Your task to perform on an android device: Clear the shopping cart on target.com. Search for panasonic triple a on target.com, select the first entry, and add it to the cart. Image 0: 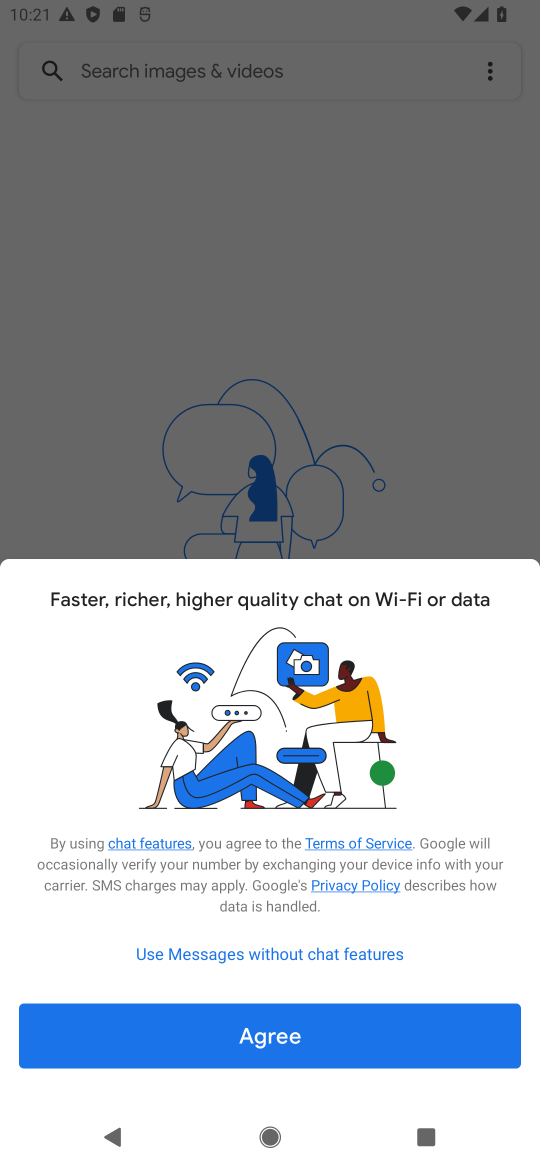
Step 0: press home button
Your task to perform on an android device: Clear the shopping cart on target.com. Search for panasonic triple a on target.com, select the first entry, and add it to the cart. Image 1: 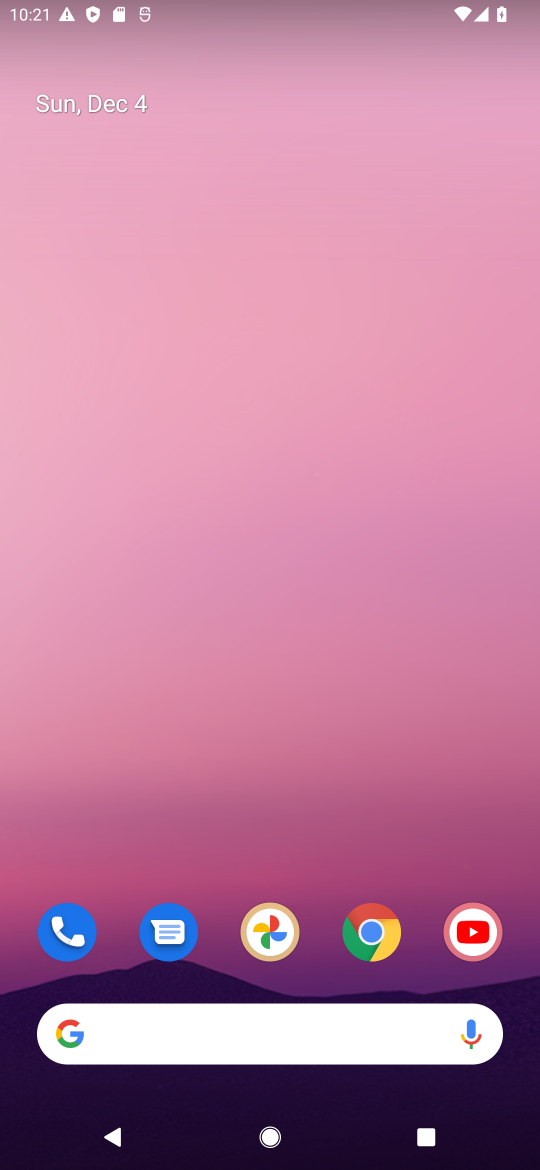
Step 1: click (361, 936)
Your task to perform on an android device: Clear the shopping cart on target.com. Search for panasonic triple a on target.com, select the first entry, and add it to the cart. Image 2: 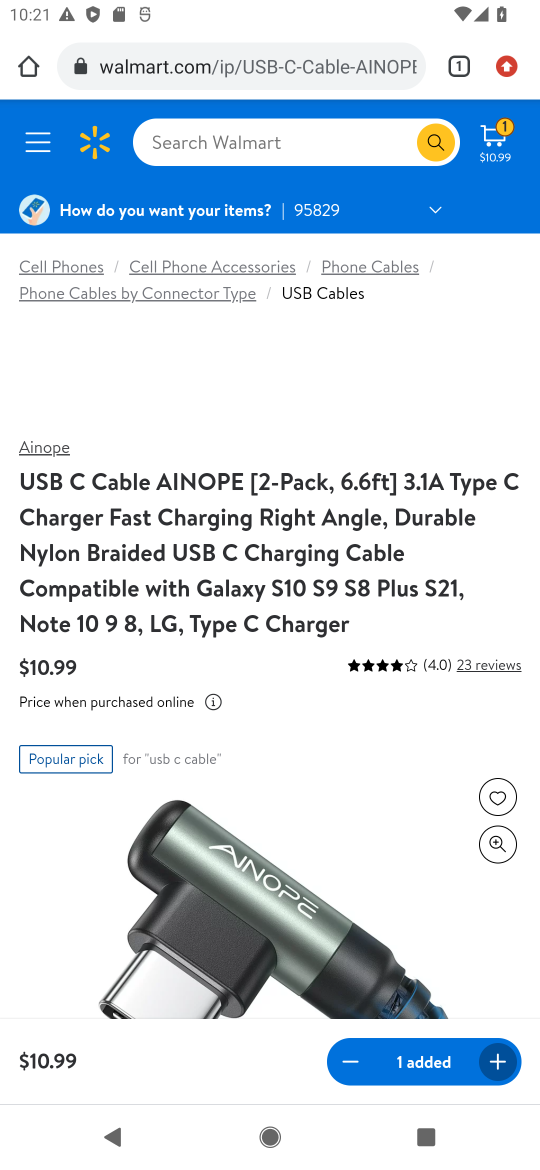
Step 2: click (239, 57)
Your task to perform on an android device: Clear the shopping cart on target.com. Search for panasonic triple a on target.com, select the first entry, and add it to the cart. Image 3: 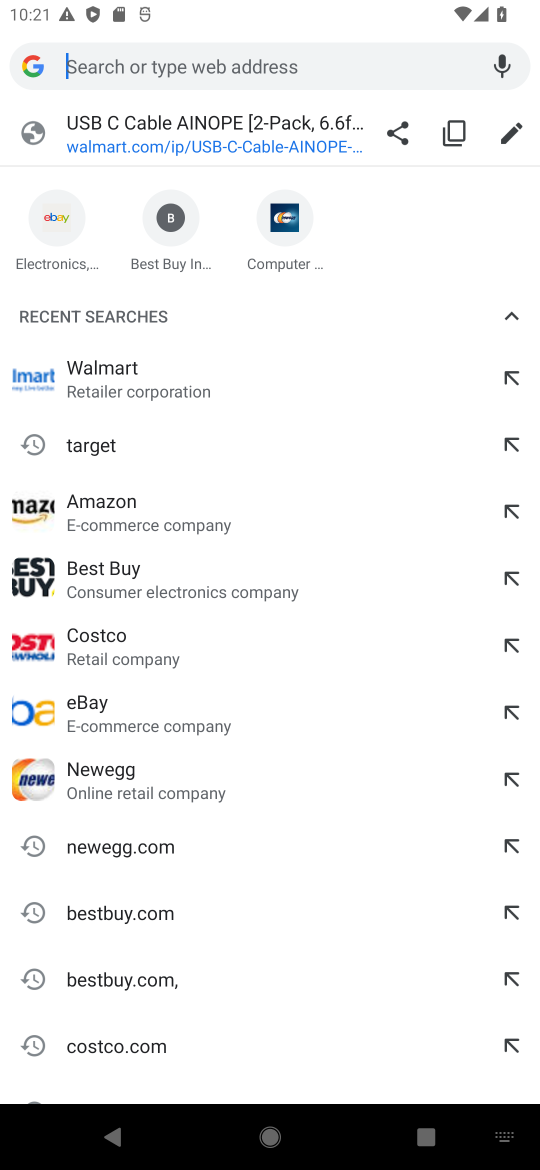
Step 3: click (100, 437)
Your task to perform on an android device: Clear the shopping cart on target.com. Search for panasonic triple a on target.com, select the first entry, and add it to the cart. Image 4: 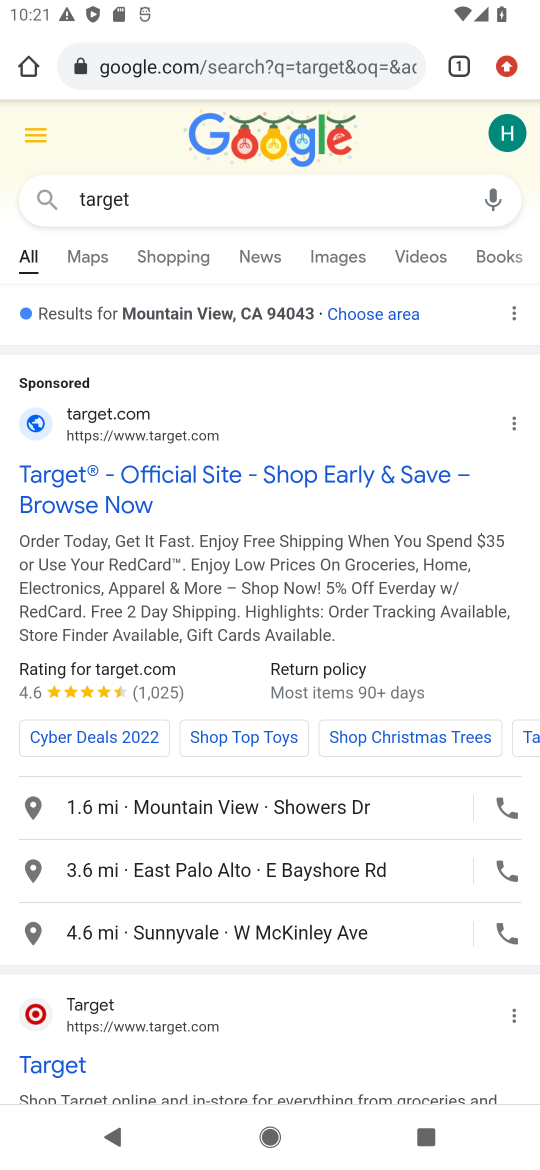
Step 4: click (224, 474)
Your task to perform on an android device: Clear the shopping cart on target.com. Search for panasonic triple a on target.com, select the first entry, and add it to the cart. Image 5: 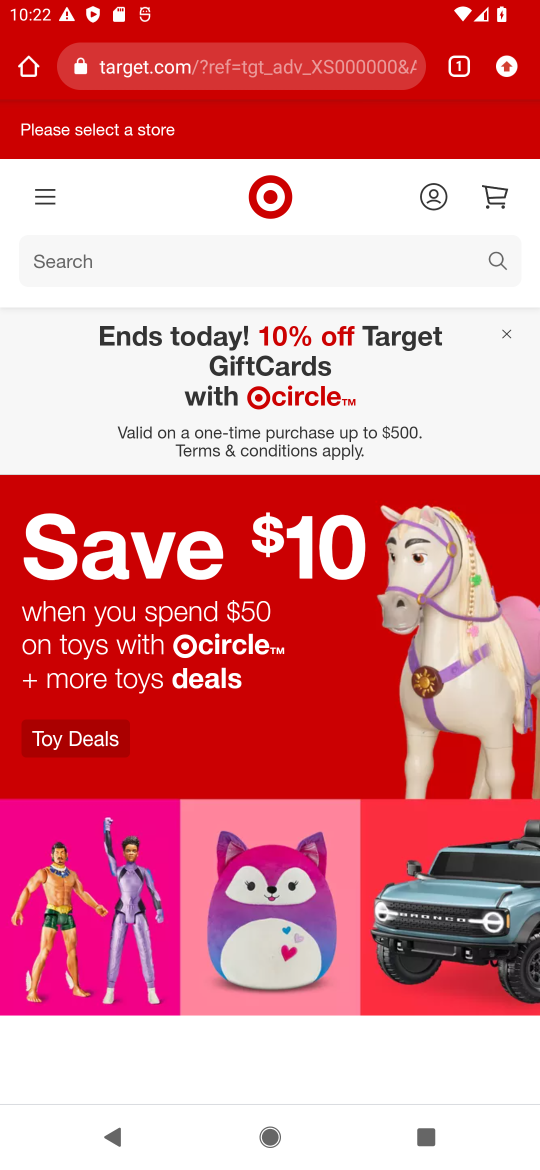
Step 5: click (282, 272)
Your task to perform on an android device: Clear the shopping cart on target.com. Search for panasonic triple a on target.com, select the first entry, and add it to the cart. Image 6: 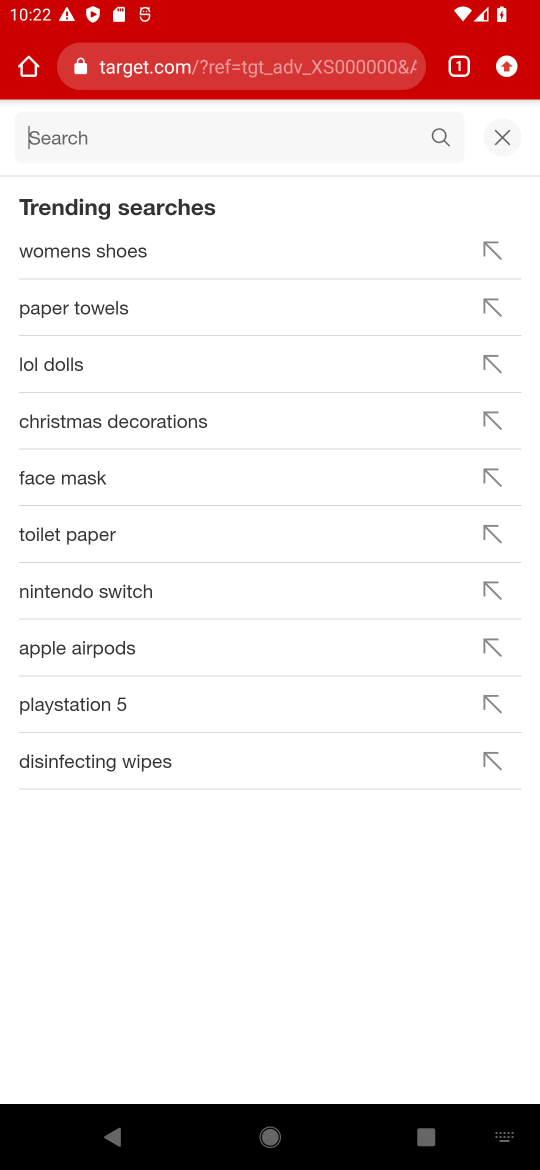
Step 6: type "panasonic triple a"
Your task to perform on an android device: Clear the shopping cart on target.com. Search for panasonic triple a on target.com, select the first entry, and add it to the cart. Image 7: 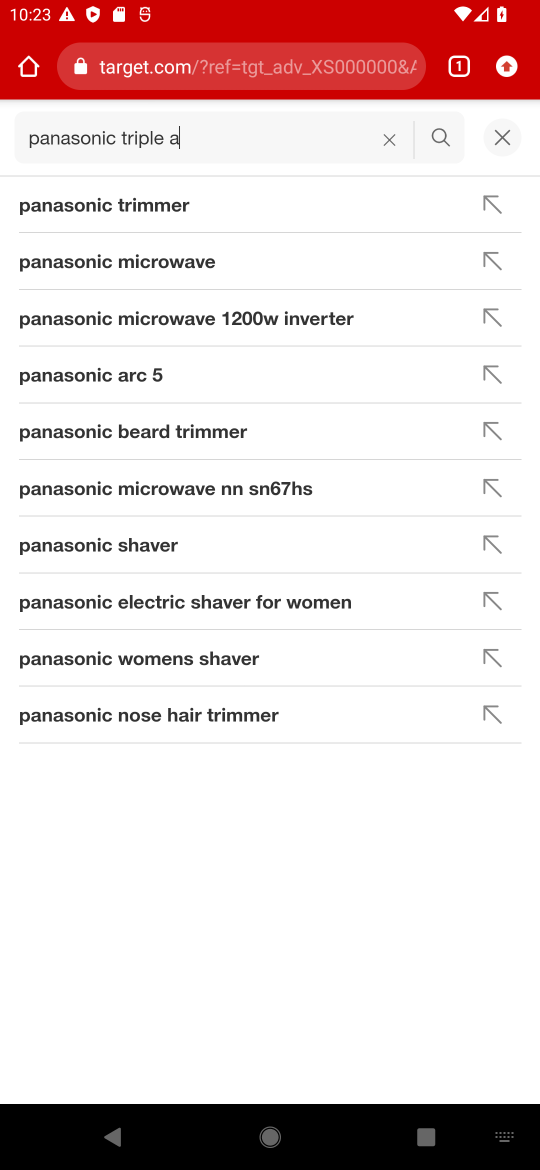
Step 7: click (103, 204)
Your task to perform on an android device: Clear the shopping cart on target.com. Search for panasonic triple a on target.com, select the first entry, and add it to the cart. Image 8: 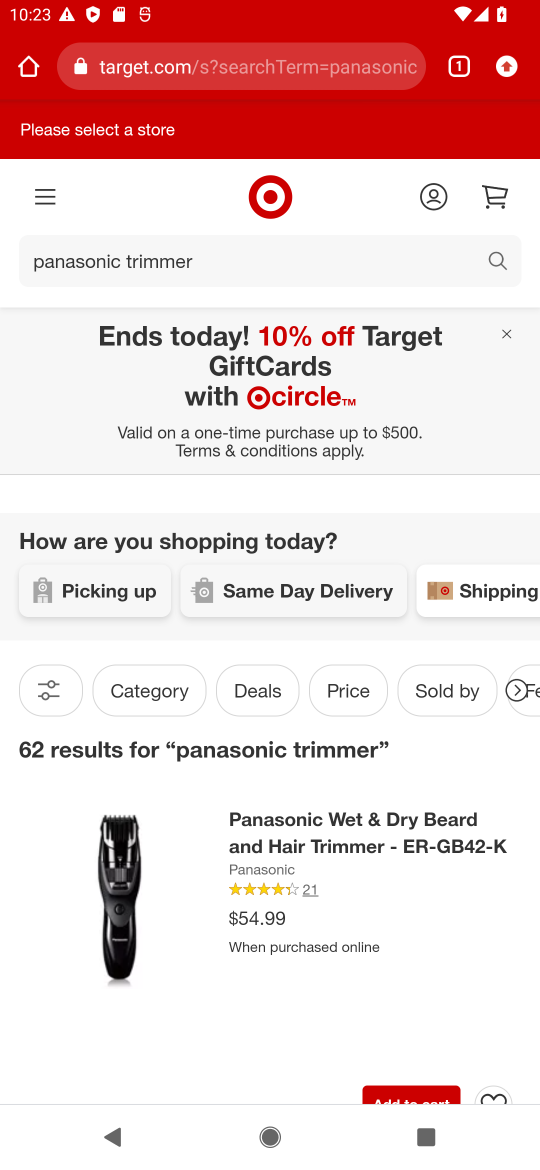
Step 8: click (139, 877)
Your task to perform on an android device: Clear the shopping cart on target.com. Search for panasonic triple a on target.com, select the first entry, and add it to the cart. Image 9: 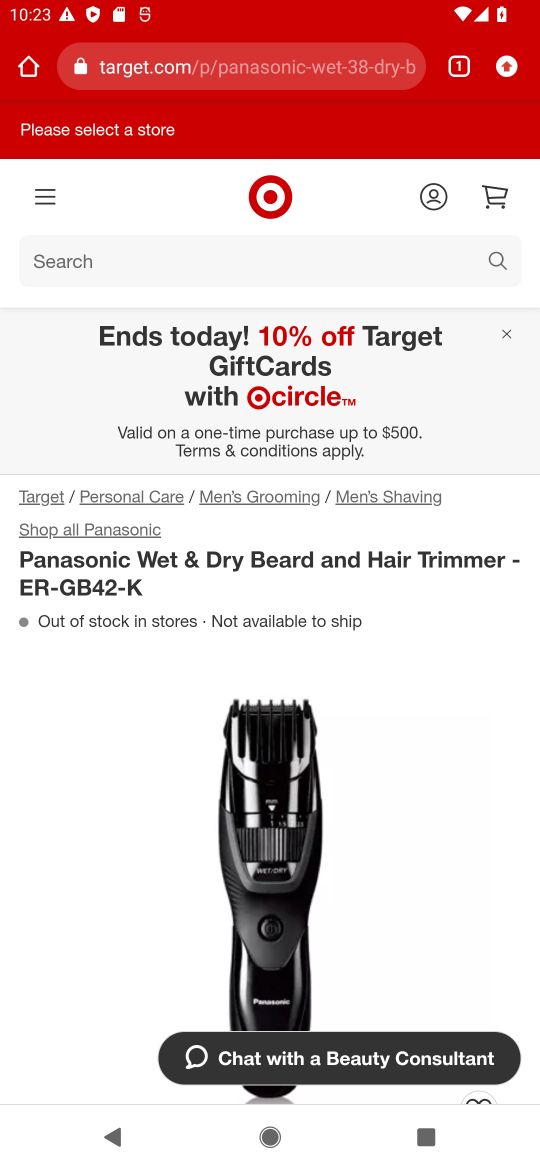
Step 9: drag from (490, 968) to (400, 398)
Your task to perform on an android device: Clear the shopping cart on target.com. Search for panasonic triple a on target.com, select the first entry, and add it to the cart. Image 10: 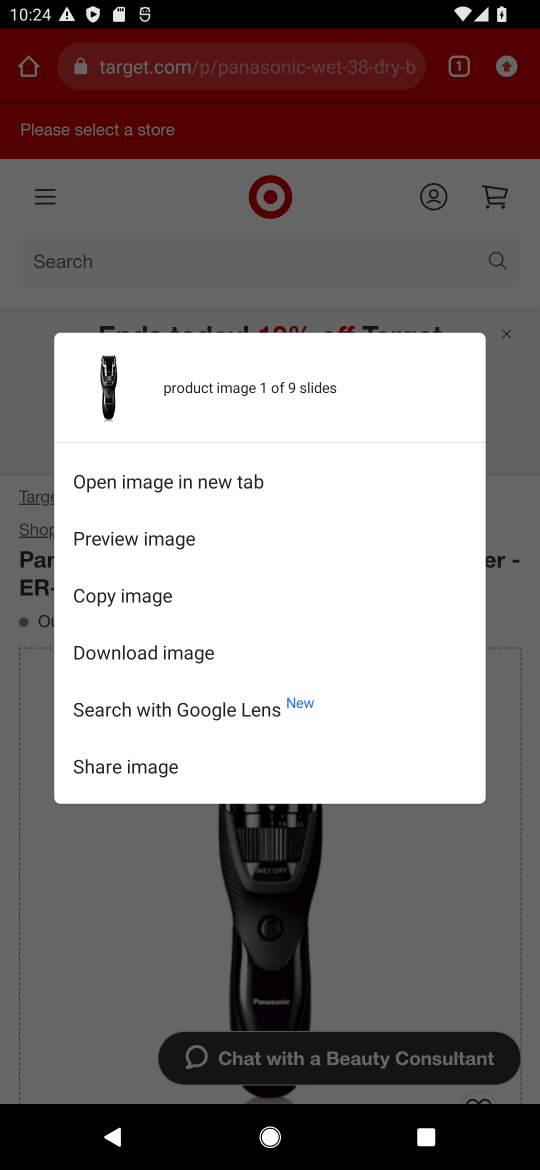
Step 10: click (346, 873)
Your task to perform on an android device: Clear the shopping cart on target.com. Search for panasonic triple a on target.com, select the first entry, and add it to the cart. Image 11: 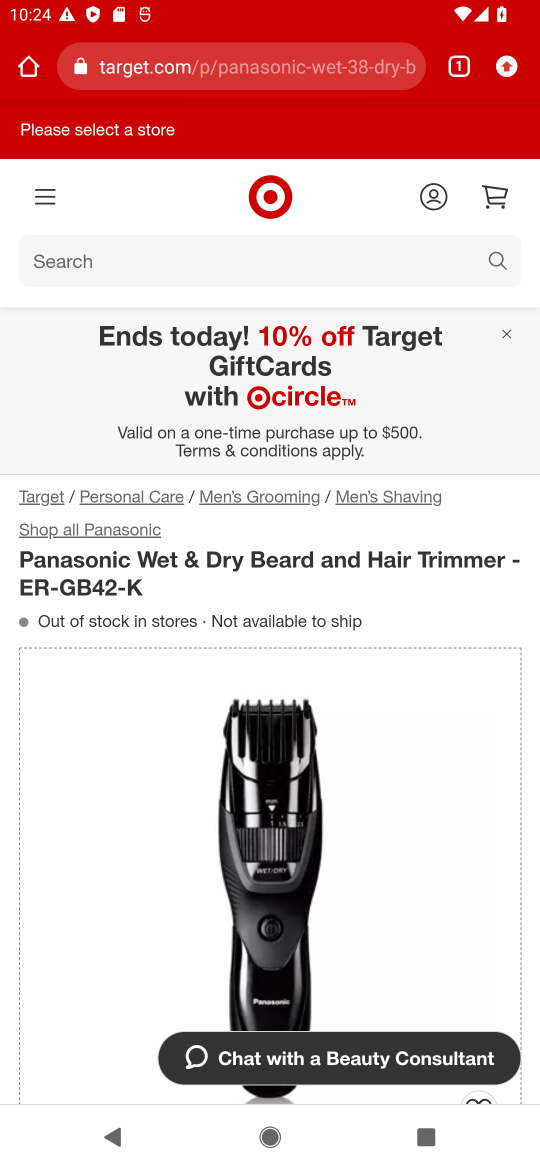
Step 11: drag from (336, 876) to (281, 263)
Your task to perform on an android device: Clear the shopping cart on target.com. Search for panasonic triple a on target.com, select the first entry, and add it to the cart. Image 12: 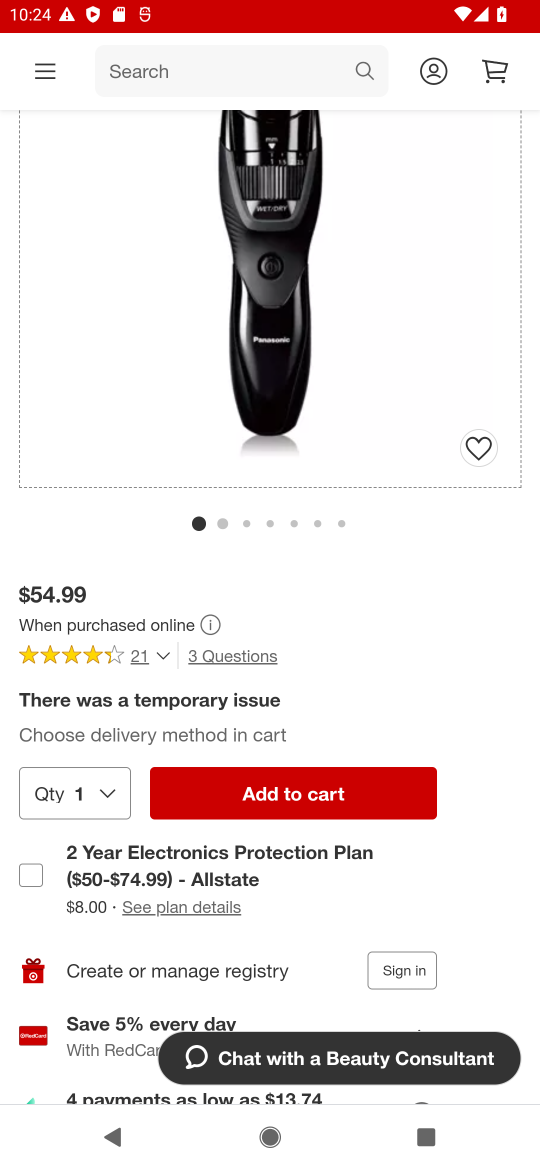
Step 12: click (298, 788)
Your task to perform on an android device: Clear the shopping cart on target.com. Search for panasonic triple a on target.com, select the first entry, and add it to the cart. Image 13: 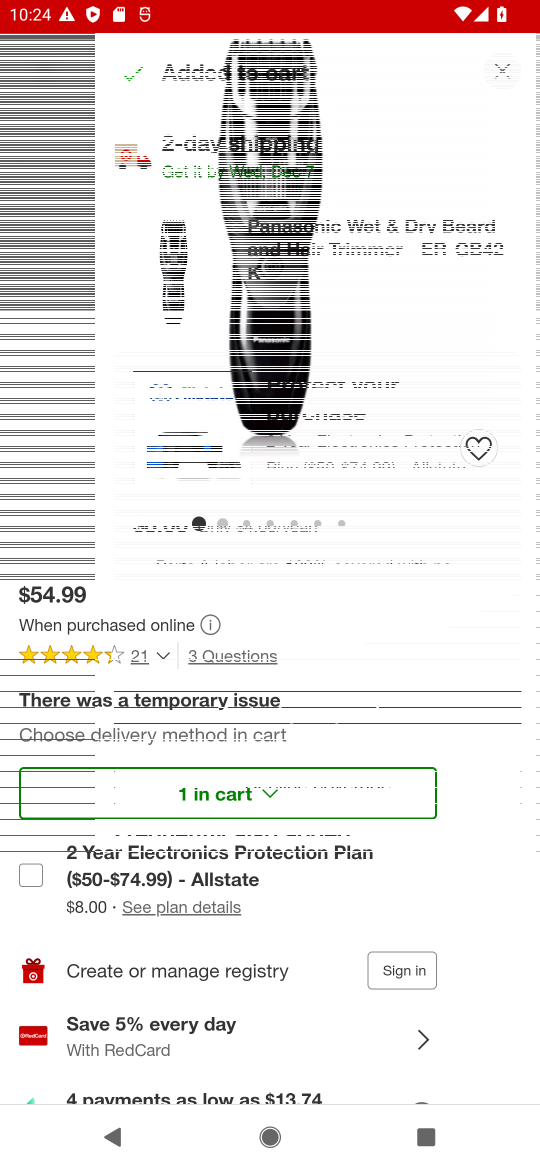
Step 13: task complete